Your task to perform on an android device: delete browsing data in the chrome app Image 0: 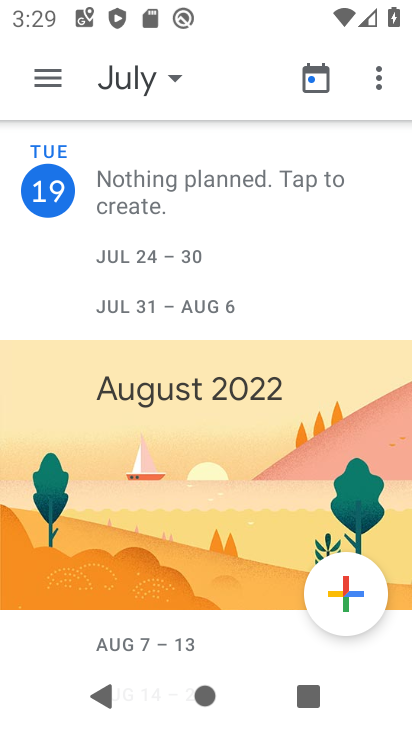
Step 0: press back button
Your task to perform on an android device: delete browsing data in the chrome app Image 1: 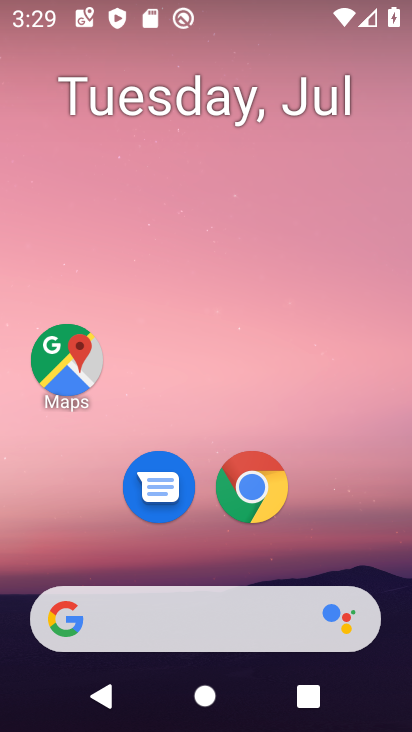
Step 1: click (242, 502)
Your task to perform on an android device: delete browsing data in the chrome app Image 2: 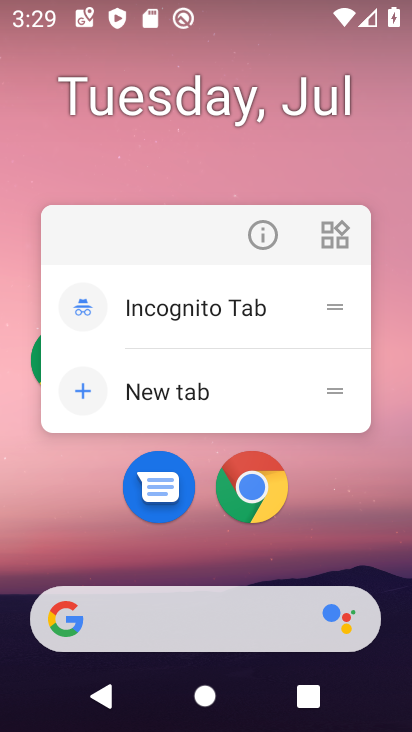
Step 2: click (233, 502)
Your task to perform on an android device: delete browsing data in the chrome app Image 3: 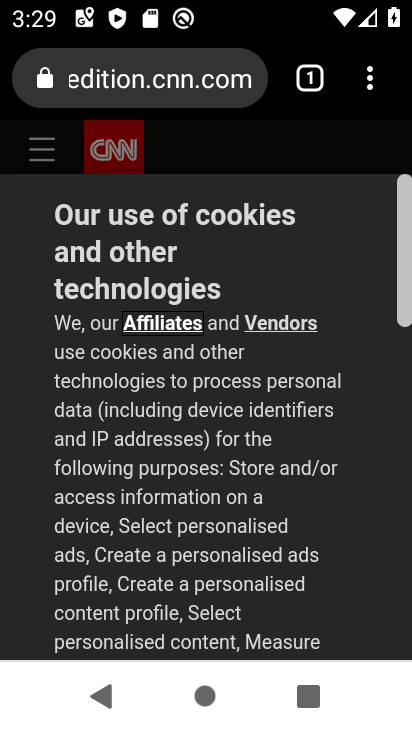
Step 3: drag from (369, 80) to (75, 426)
Your task to perform on an android device: delete browsing data in the chrome app Image 4: 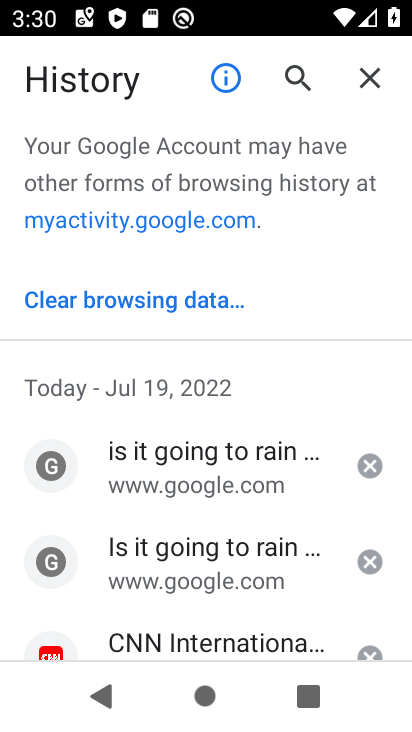
Step 4: click (170, 304)
Your task to perform on an android device: delete browsing data in the chrome app Image 5: 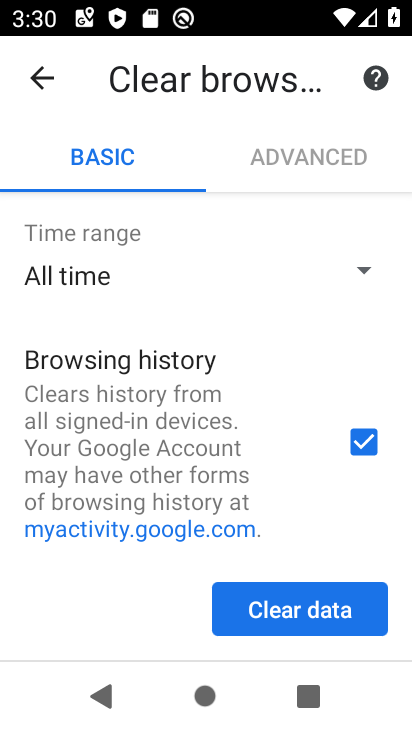
Step 5: drag from (166, 507) to (222, 148)
Your task to perform on an android device: delete browsing data in the chrome app Image 6: 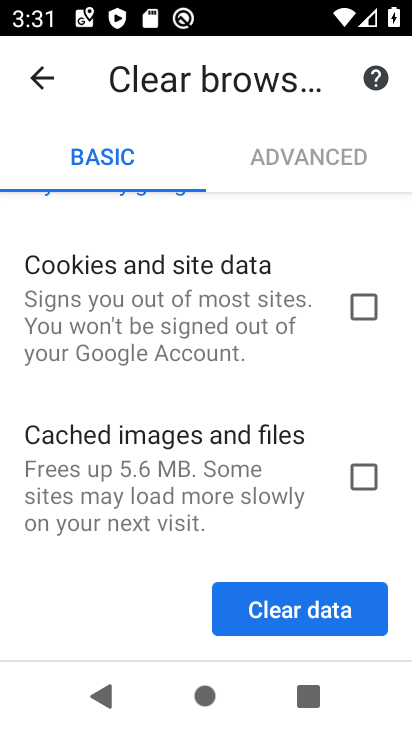
Step 6: click (190, 306)
Your task to perform on an android device: delete browsing data in the chrome app Image 7: 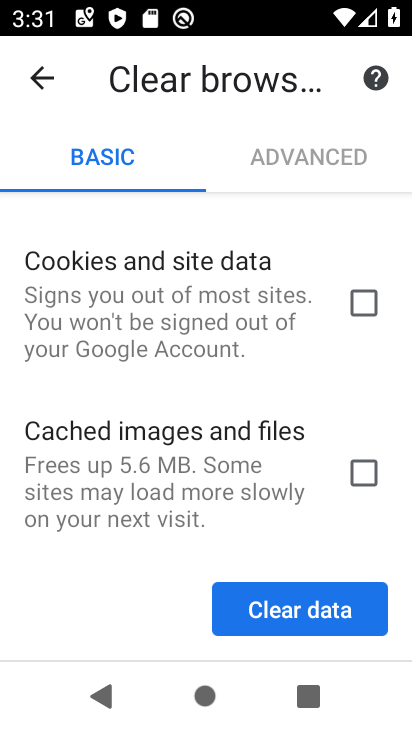
Step 7: click (334, 297)
Your task to perform on an android device: delete browsing data in the chrome app Image 8: 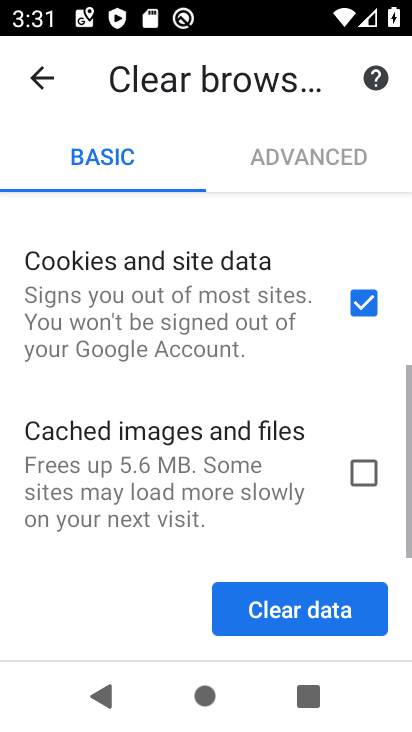
Step 8: click (361, 479)
Your task to perform on an android device: delete browsing data in the chrome app Image 9: 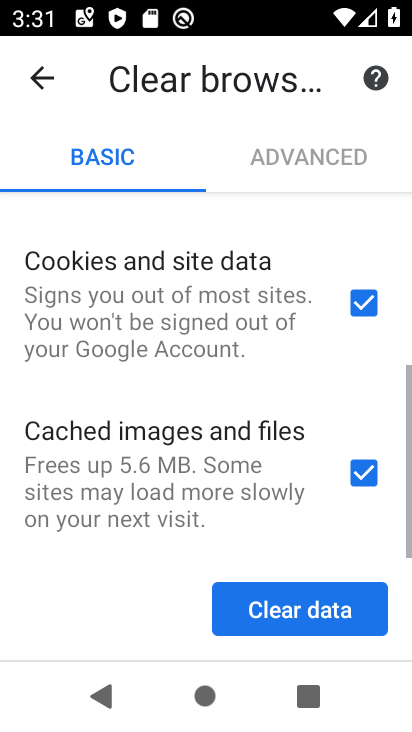
Step 9: drag from (213, 249) to (220, 295)
Your task to perform on an android device: delete browsing data in the chrome app Image 10: 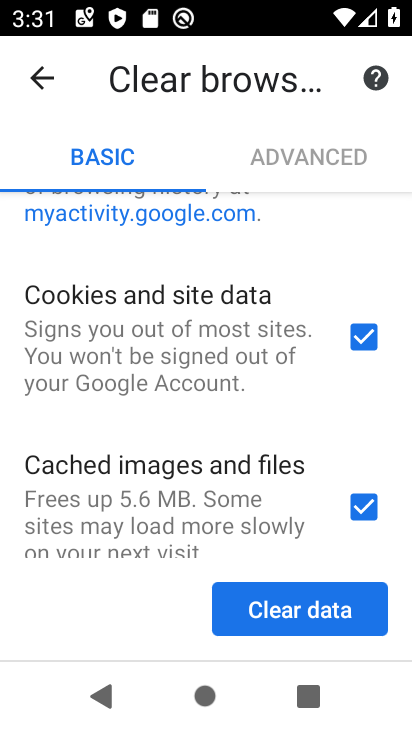
Step 10: click (284, 602)
Your task to perform on an android device: delete browsing data in the chrome app Image 11: 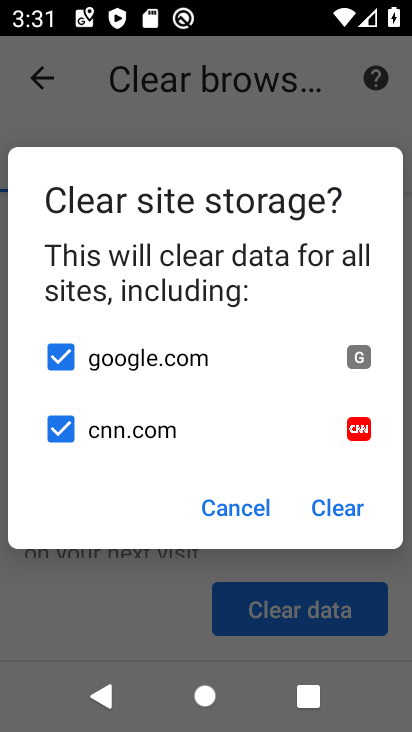
Step 11: click (342, 505)
Your task to perform on an android device: delete browsing data in the chrome app Image 12: 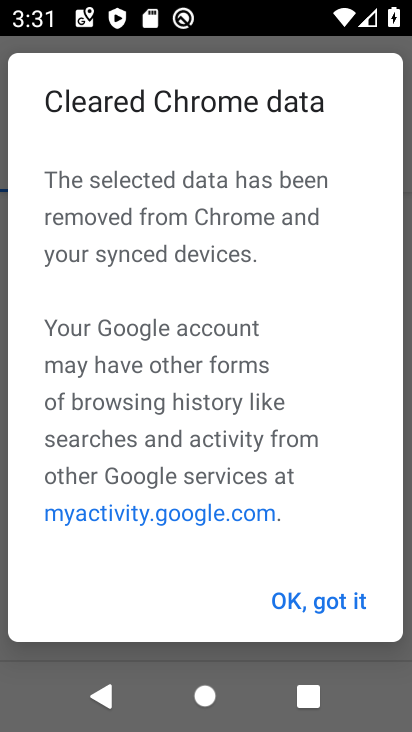
Step 12: click (314, 603)
Your task to perform on an android device: delete browsing data in the chrome app Image 13: 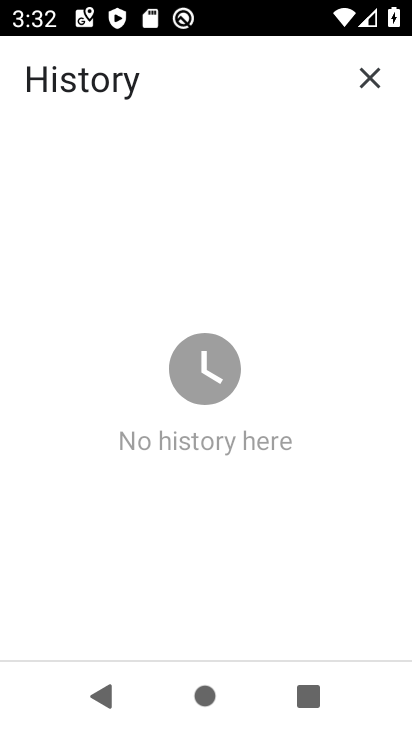
Step 13: task complete